Your task to perform on an android device: Go to display settings Image 0: 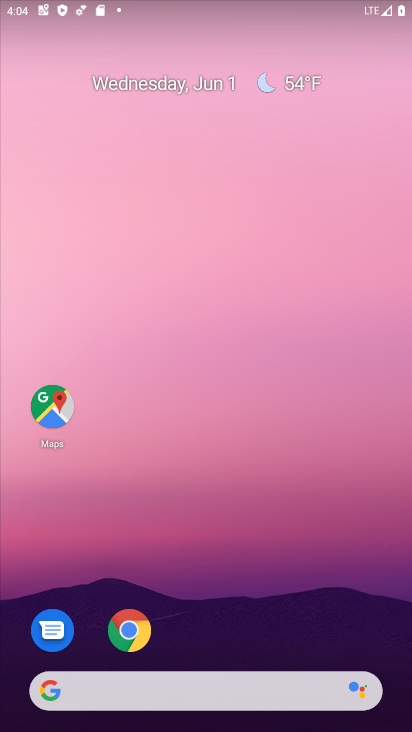
Step 0: drag from (286, 565) to (261, 118)
Your task to perform on an android device: Go to display settings Image 1: 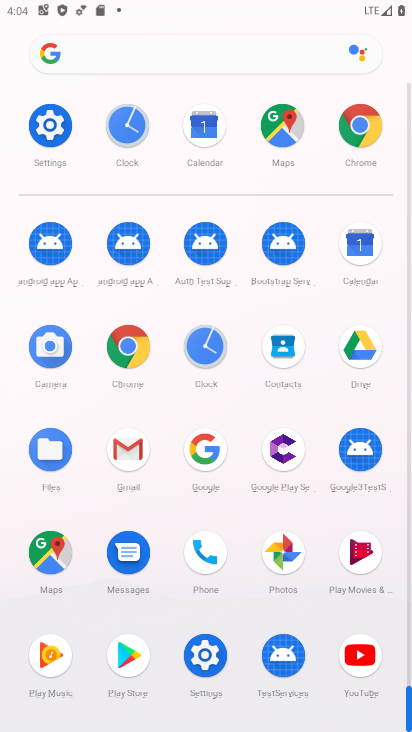
Step 1: drag from (3, 634) to (11, 188)
Your task to perform on an android device: Go to display settings Image 2: 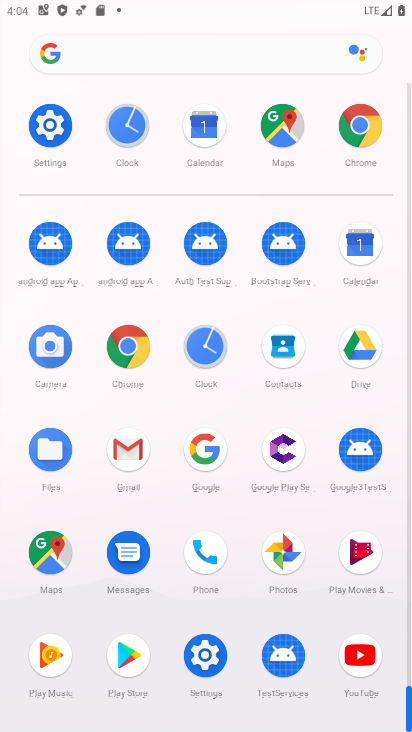
Step 2: drag from (7, 607) to (7, 248)
Your task to perform on an android device: Go to display settings Image 3: 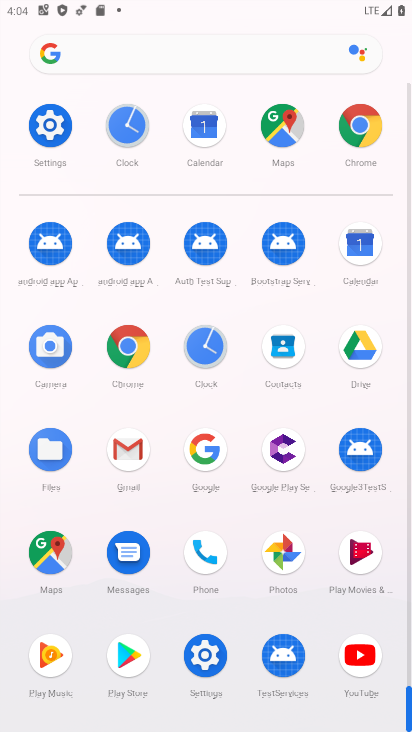
Step 3: click (200, 653)
Your task to perform on an android device: Go to display settings Image 4: 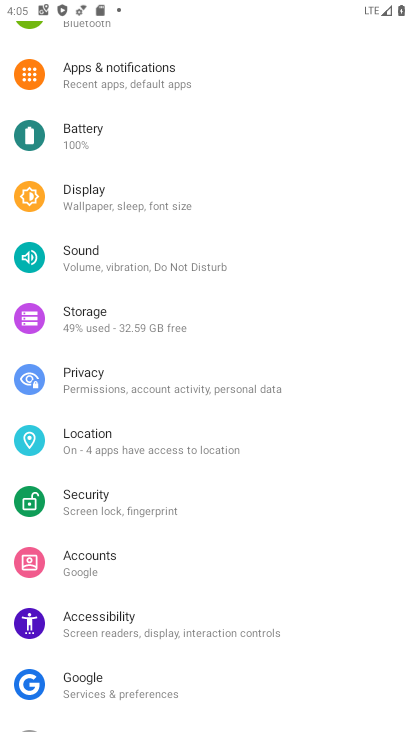
Step 4: click (97, 200)
Your task to perform on an android device: Go to display settings Image 5: 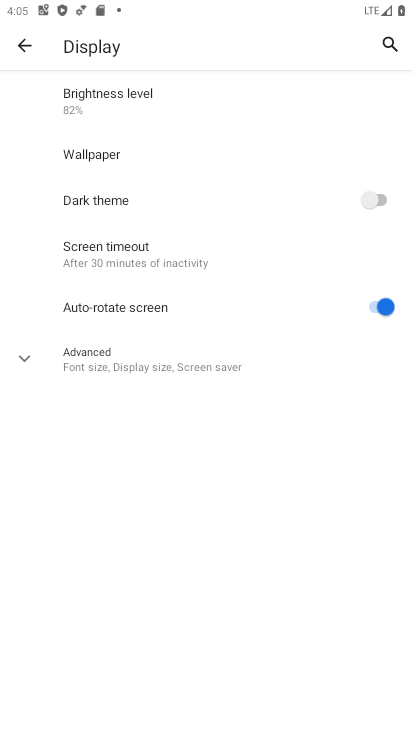
Step 5: click (50, 354)
Your task to perform on an android device: Go to display settings Image 6: 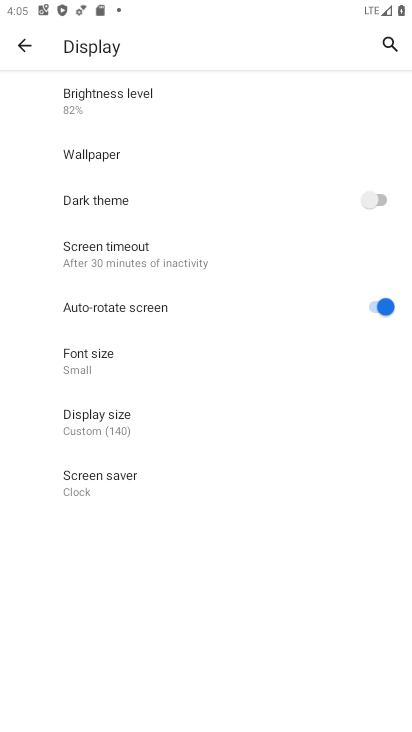
Step 6: task complete